Your task to perform on an android device: Open the calendar app, open the side menu, and click the "Day" option Image 0: 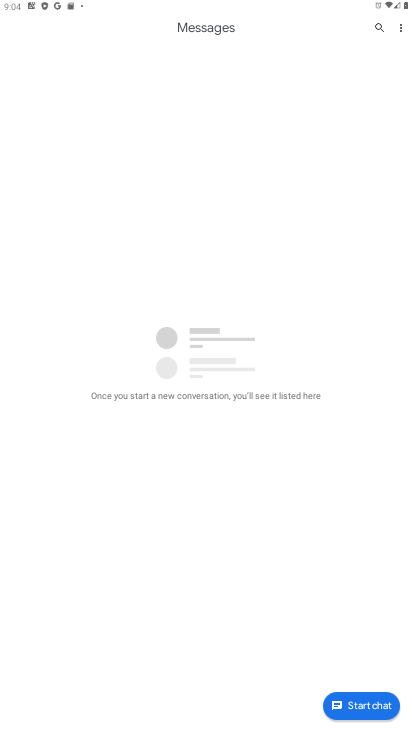
Step 0: press back button
Your task to perform on an android device: Open the calendar app, open the side menu, and click the "Day" option Image 1: 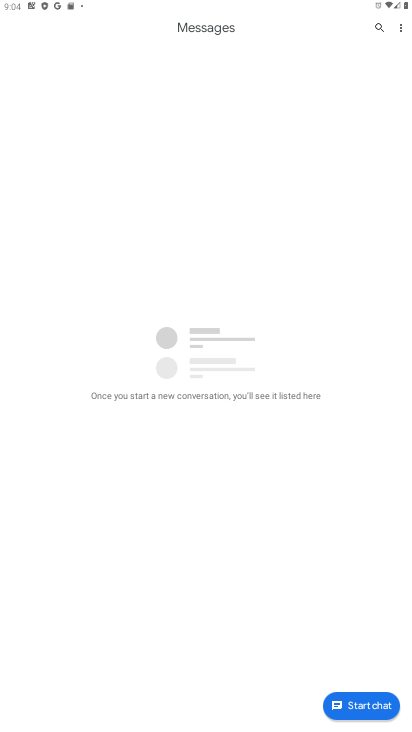
Step 1: press back button
Your task to perform on an android device: Open the calendar app, open the side menu, and click the "Day" option Image 2: 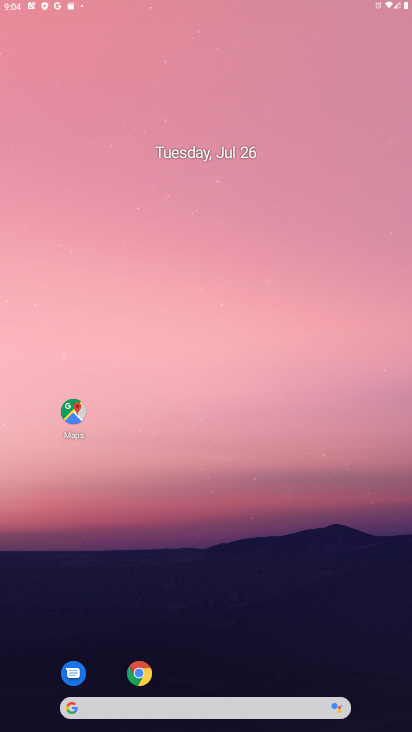
Step 2: press back button
Your task to perform on an android device: Open the calendar app, open the side menu, and click the "Day" option Image 3: 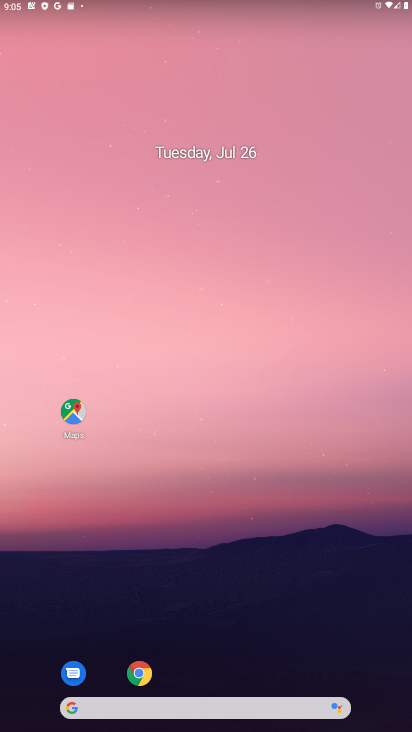
Step 3: drag from (180, 587) to (169, 324)
Your task to perform on an android device: Open the calendar app, open the side menu, and click the "Day" option Image 4: 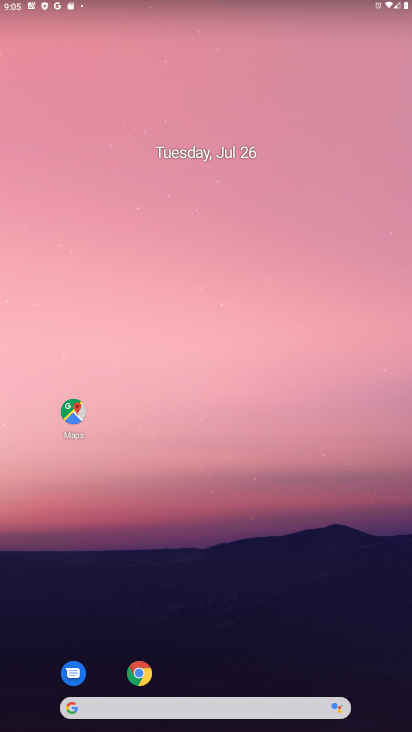
Step 4: drag from (213, 317) to (196, 66)
Your task to perform on an android device: Open the calendar app, open the side menu, and click the "Day" option Image 5: 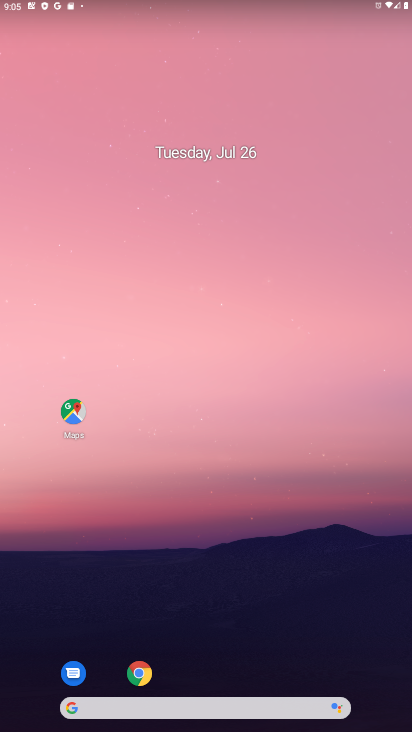
Step 5: drag from (202, 289) to (246, 39)
Your task to perform on an android device: Open the calendar app, open the side menu, and click the "Day" option Image 6: 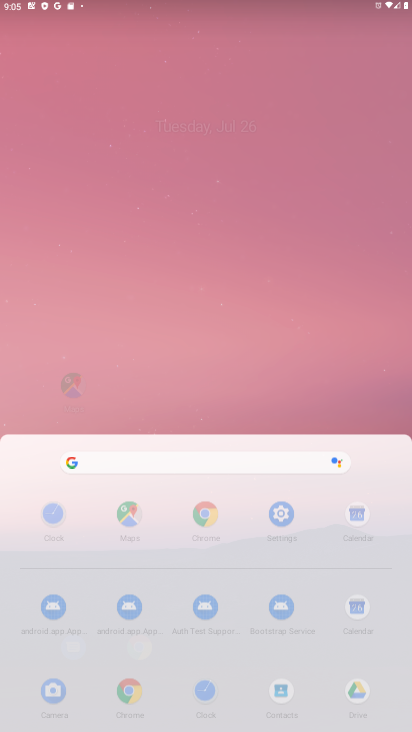
Step 6: drag from (184, 185) to (184, 56)
Your task to perform on an android device: Open the calendar app, open the side menu, and click the "Day" option Image 7: 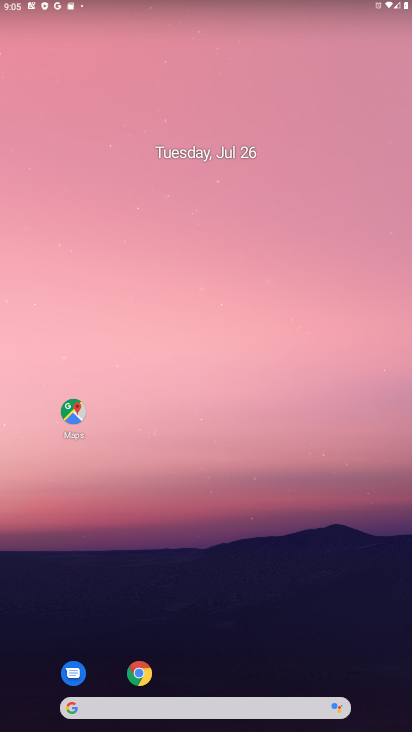
Step 7: drag from (258, 408) to (249, 51)
Your task to perform on an android device: Open the calendar app, open the side menu, and click the "Day" option Image 8: 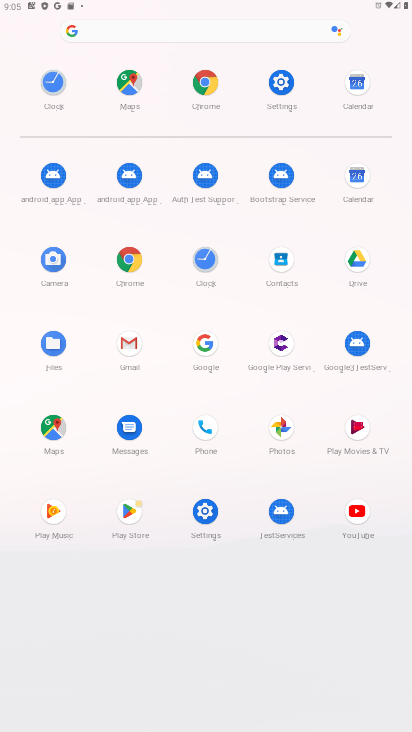
Step 8: drag from (294, 518) to (266, 145)
Your task to perform on an android device: Open the calendar app, open the side menu, and click the "Day" option Image 9: 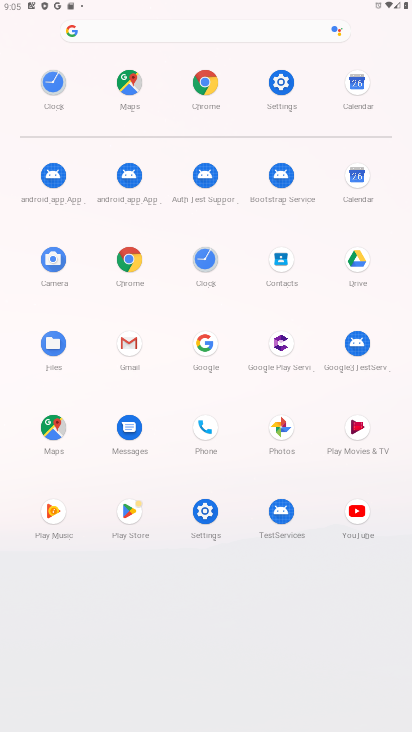
Step 9: click (263, 84)
Your task to perform on an android device: Open the calendar app, open the side menu, and click the "Day" option Image 10: 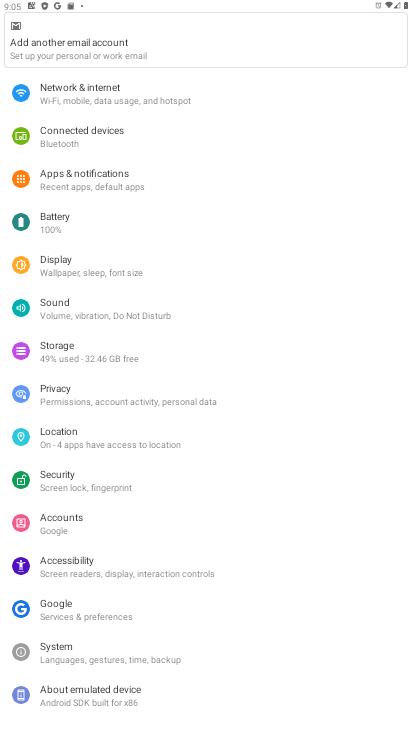
Step 10: drag from (77, 330) to (73, 292)
Your task to perform on an android device: Open the calendar app, open the side menu, and click the "Day" option Image 11: 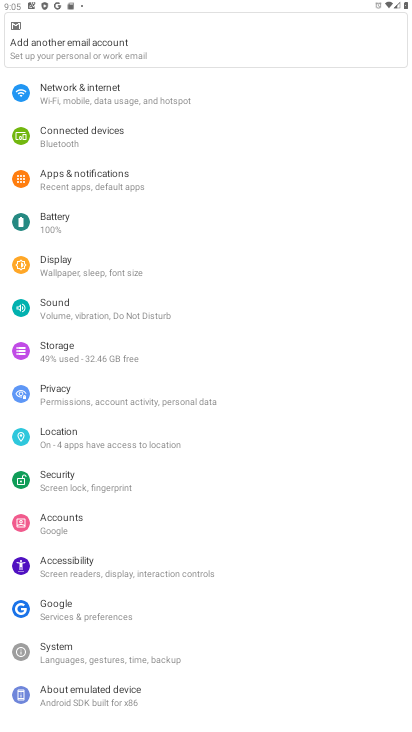
Step 11: press back button
Your task to perform on an android device: Open the calendar app, open the side menu, and click the "Day" option Image 12: 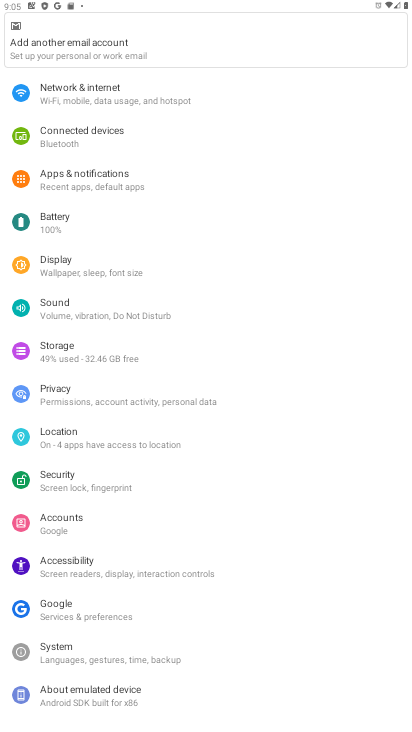
Step 12: press back button
Your task to perform on an android device: Open the calendar app, open the side menu, and click the "Day" option Image 13: 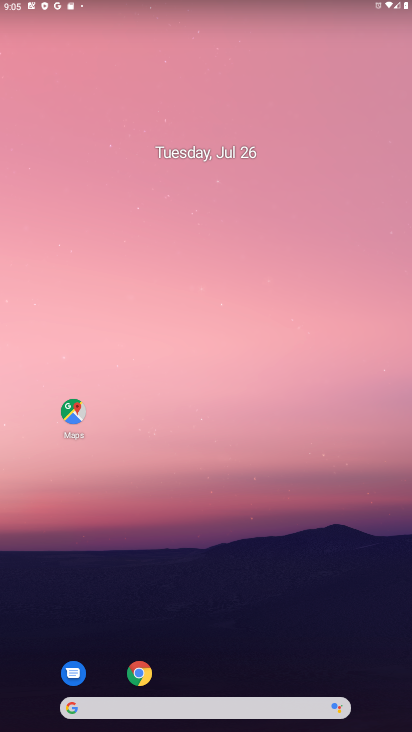
Step 13: drag from (206, 556) to (231, 350)
Your task to perform on an android device: Open the calendar app, open the side menu, and click the "Day" option Image 14: 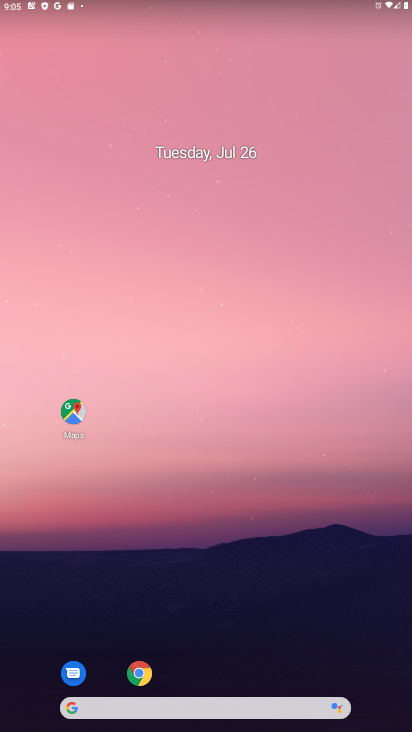
Step 14: drag from (299, 546) to (307, 389)
Your task to perform on an android device: Open the calendar app, open the side menu, and click the "Day" option Image 15: 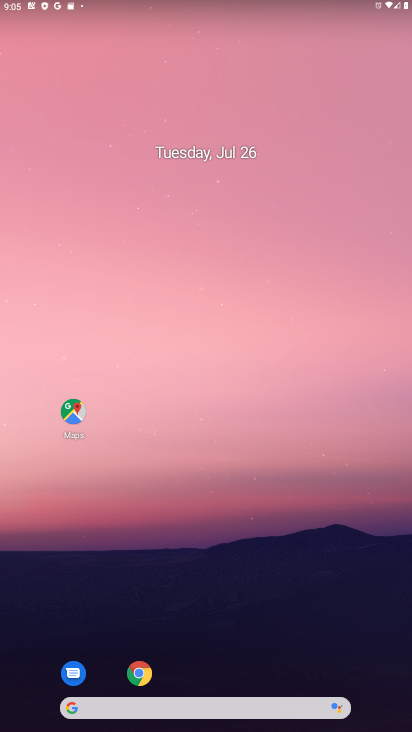
Step 15: drag from (285, 471) to (259, 217)
Your task to perform on an android device: Open the calendar app, open the side menu, and click the "Day" option Image 16: 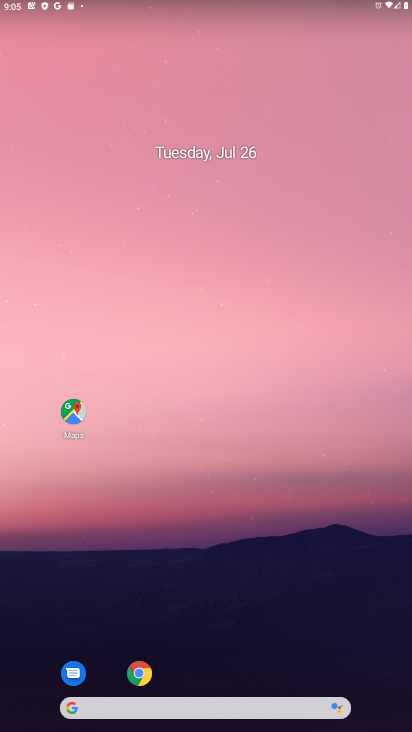
Step 16: drag from (220, 428) to (198, 175)
Your task to perform on an android device: Open the calendar app, open the side menu, and click the "Day" option Image 17: 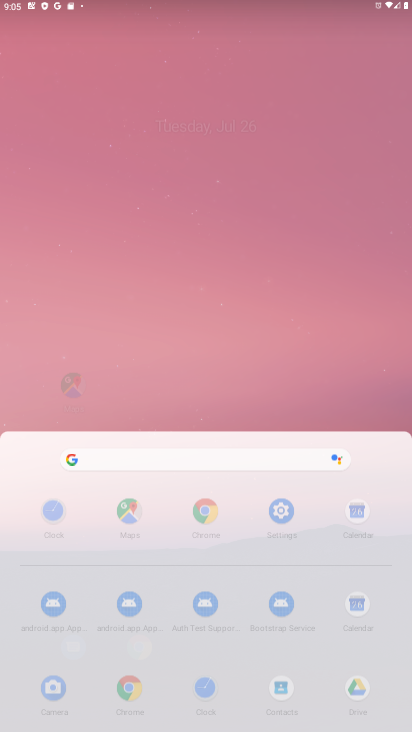
Step 17: drag from (286, 406) to (287, 148)
Your task to perform on an android device: Open the calendar app, open the side menu, and click the "Day" option Image 18: 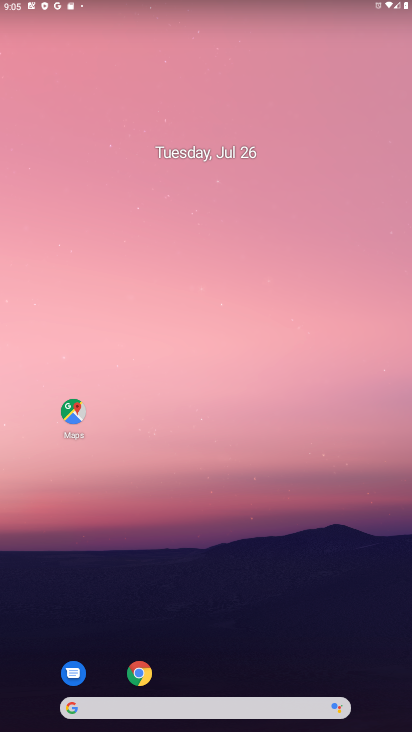
Step 18: drag from (341, 489) to (336, 121)
Your task to perform on an android device: Open the calendar app, open the side menu, and click the "Day" option Image 19: 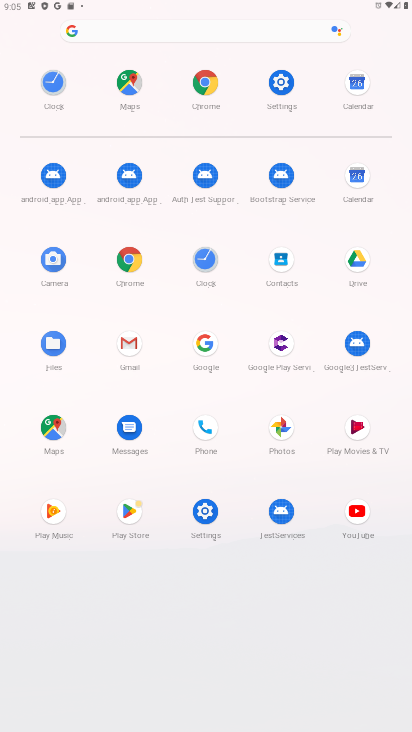
Step 19: drag from (225, 505) to (230, 86)
Your task to perform on an android device: Open the calendar app, open the side menu, and click the "Day" option Image 20: 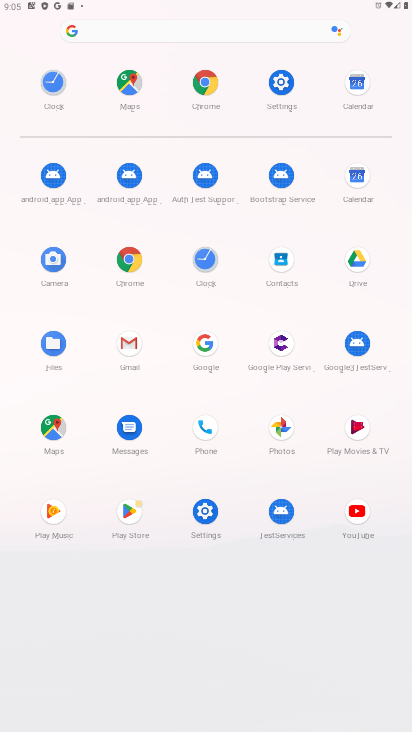
Step 20: click (357, 171)
Your task to perform on an android device: Open the calendar app, open the side menu, and click the "Day" option Image 21: 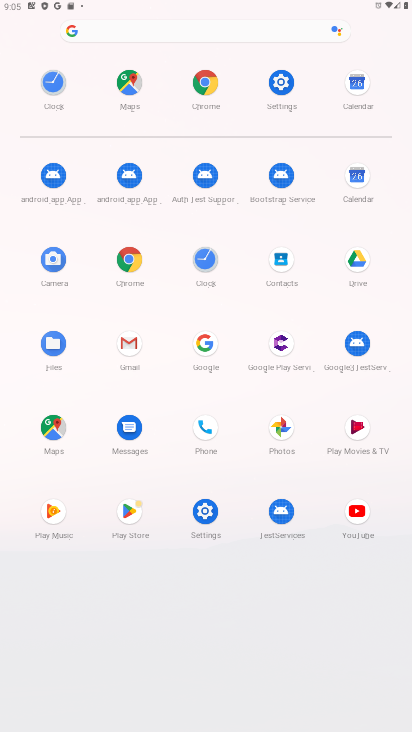
Step 21: click (362, 175)
Your task to perform on an android device: Open the calendar app, open the side menu, and click the "Day" option Image 22: 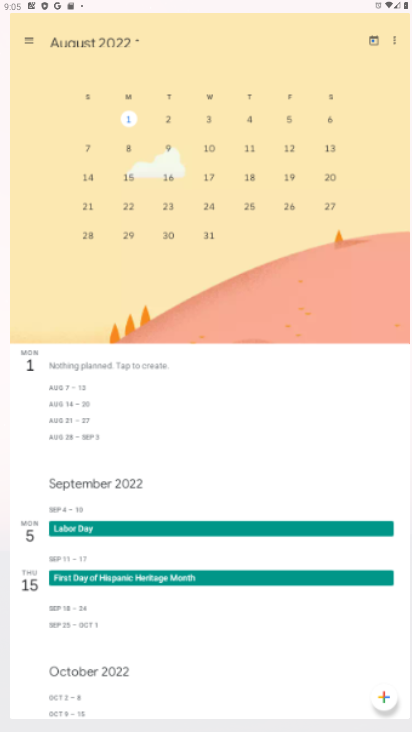
Step 22: click (362, 176)
Your task to perform on an android device: Open the calendar app, open the side menu, and click the "Day" option Image 23: 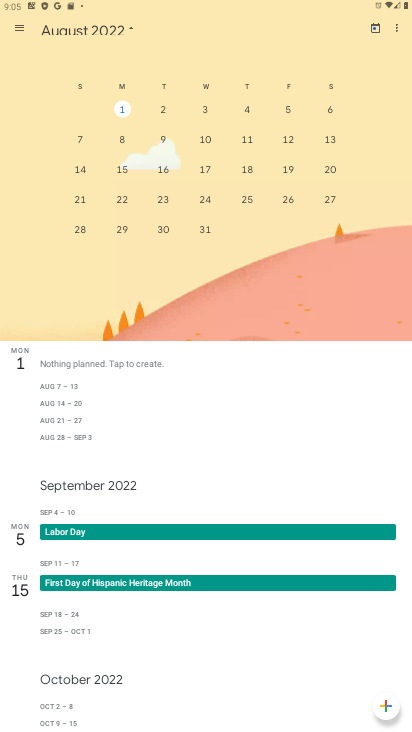
Step 23: click (15, 24)
Your task to perform on an android device: Open the calendar app, open the side menu, and click the "Day" option Image 24: 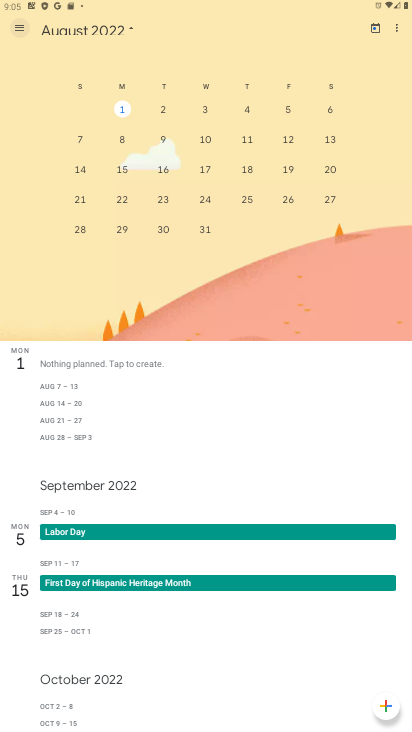
Step 24: click (15, 24)
Your task to perform on an android device: Open the calendar app, open the side menu, and click the "Day" option Image 25: 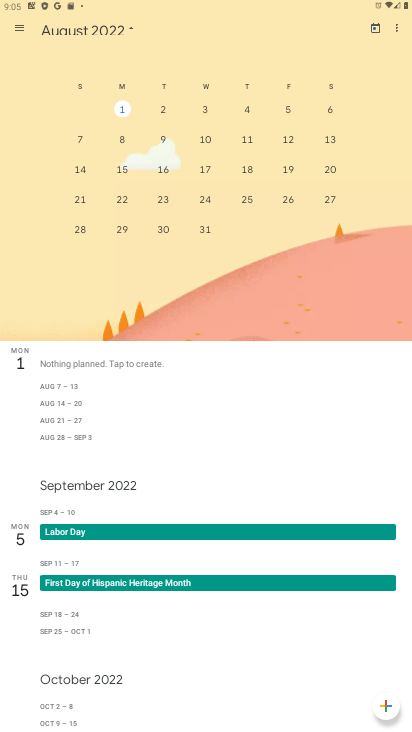
Step 25: click (15, 24)
Your task to perform on an android device: Open the calendar app, open the side menu, and click the "Day" option Image 26: 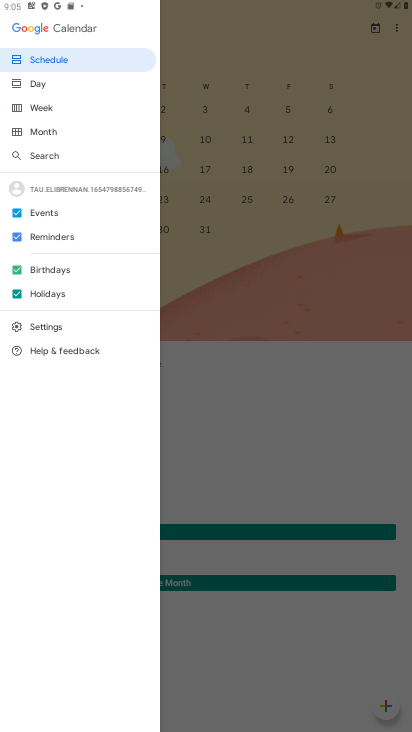
Step 26: click (17, 25)
Your task to perform on an android device: Open the calendar app, open the side menu, and click the "Day" option Image 27: 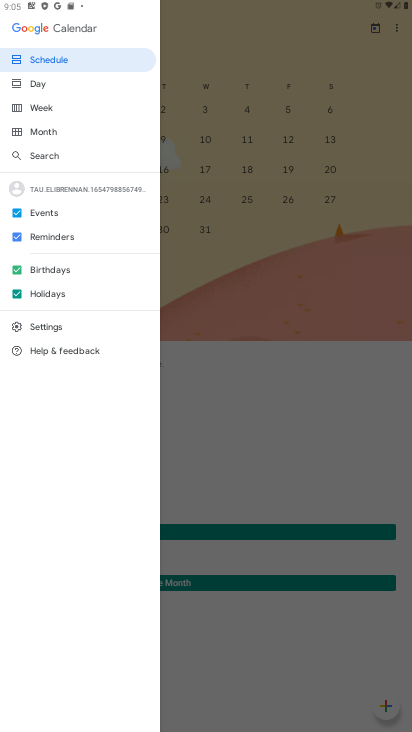
Step 27: click (36, 79)
Your task to perform on an android device: Open the calendar app, open the side menu, and click the "Day" option Image 28: 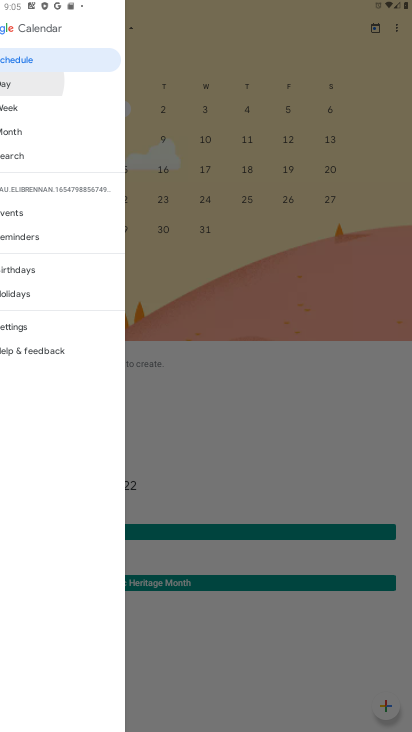
Step 28: click (38, 80)
Your task to perform on an android device: Open the calendar app, open the side menu, and click the "Day" option Image 29: 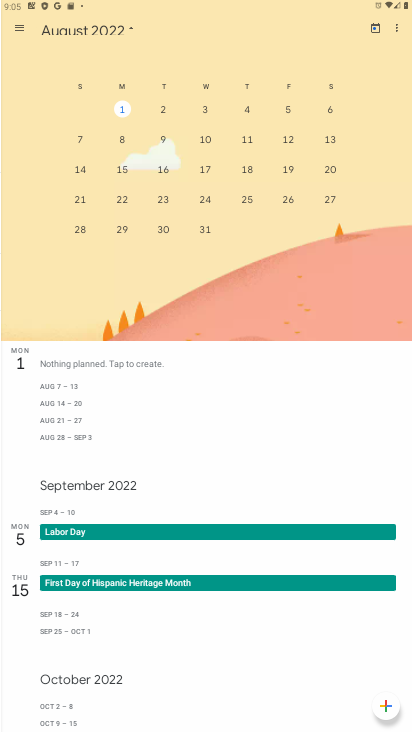
Step 29: click (38, 80)
Your task to perform on an android device: Open the calendar app, open the side menu, and click the "Day" option Image 30: 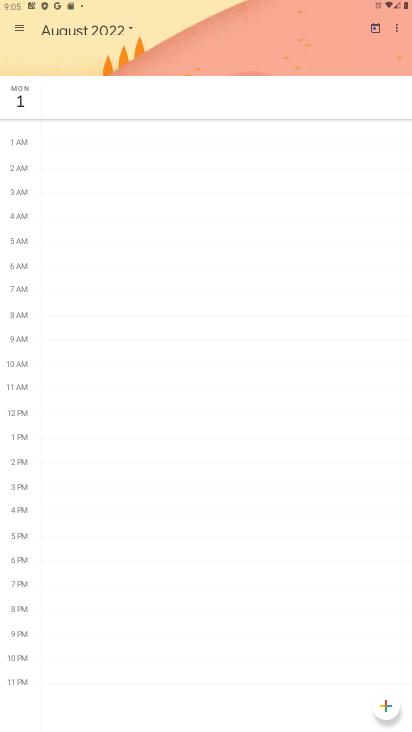
Step 30: task complete